Your task to perform on an android device: install app "Chime – Mobile Banking" Image 0: 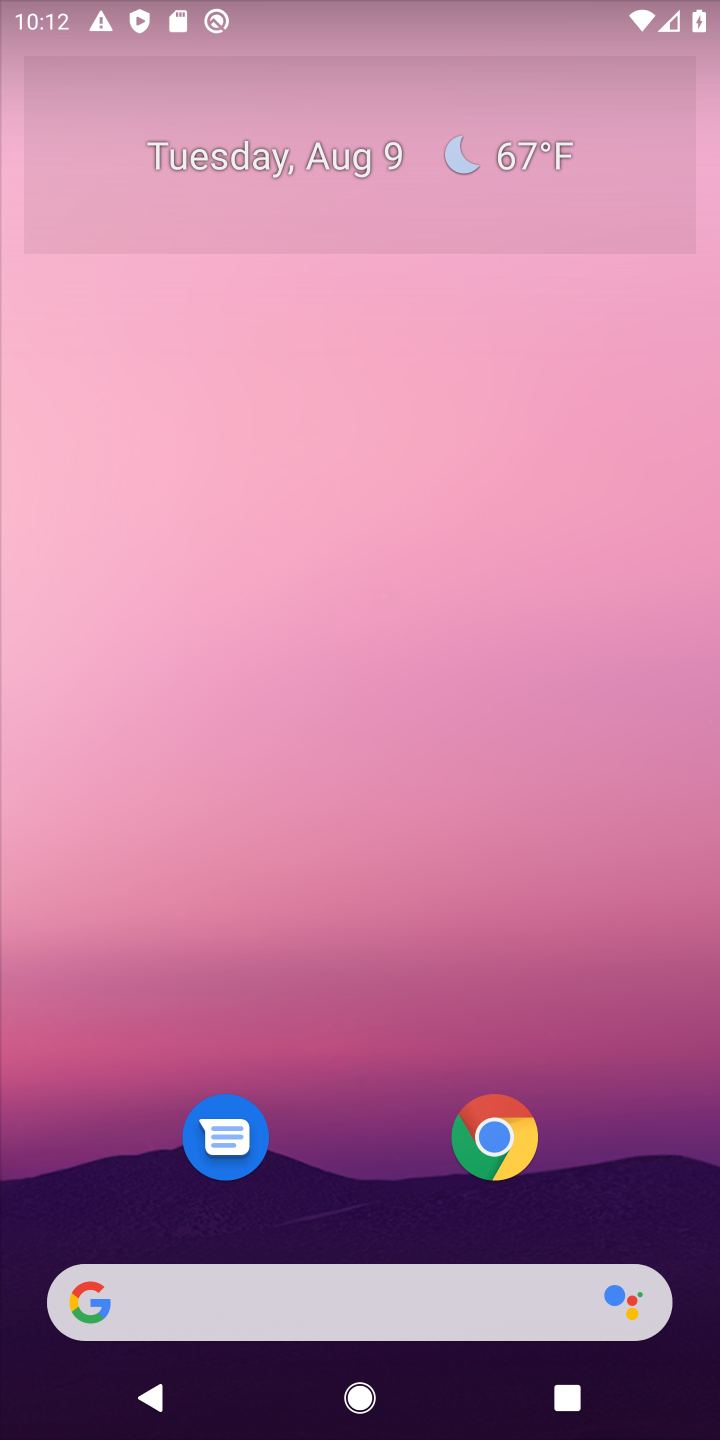
Step 0: drag from (634, 1133) to (212, 109)
Your task to perform on an android device: install app "Chime – Mobile Banking" Image 1: 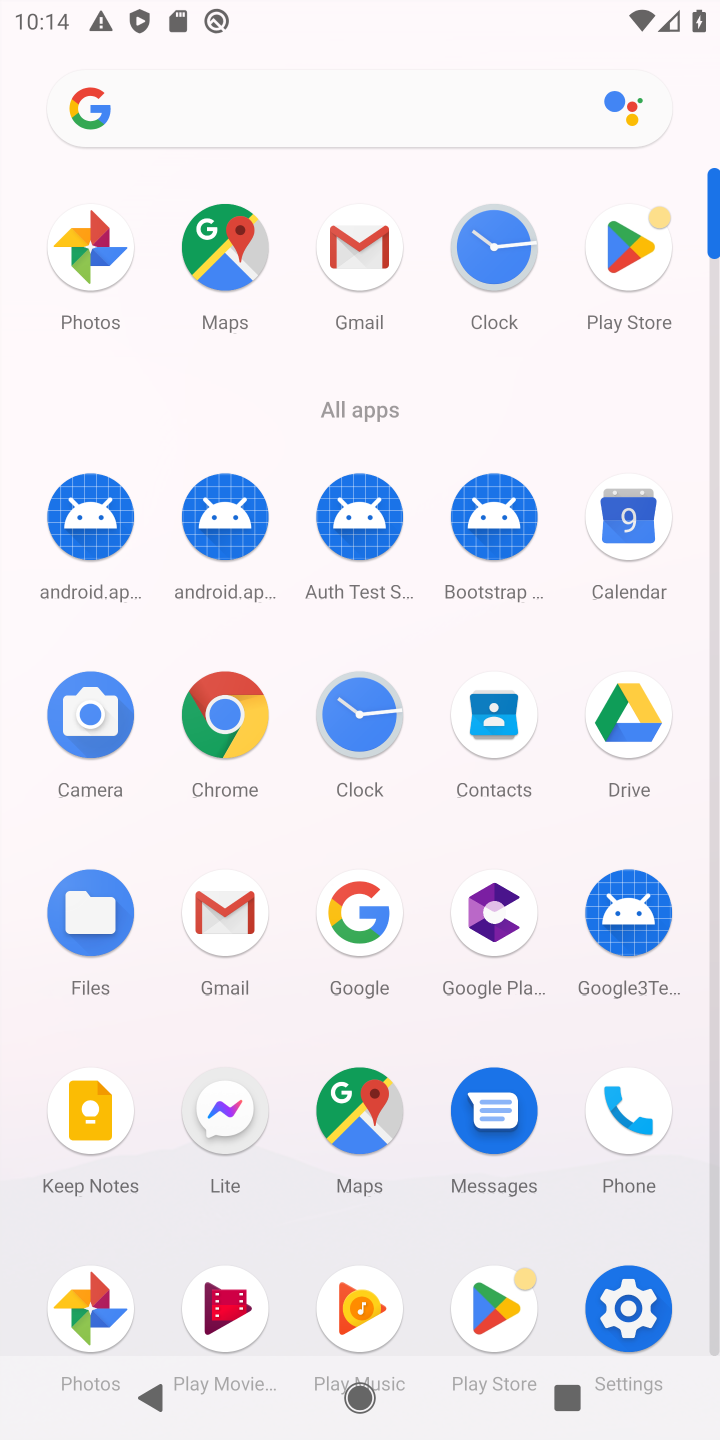
Step 1: click (648, 267)
Your task to perform on an android device: install app "Chime – Mobile Banking" Image 2: 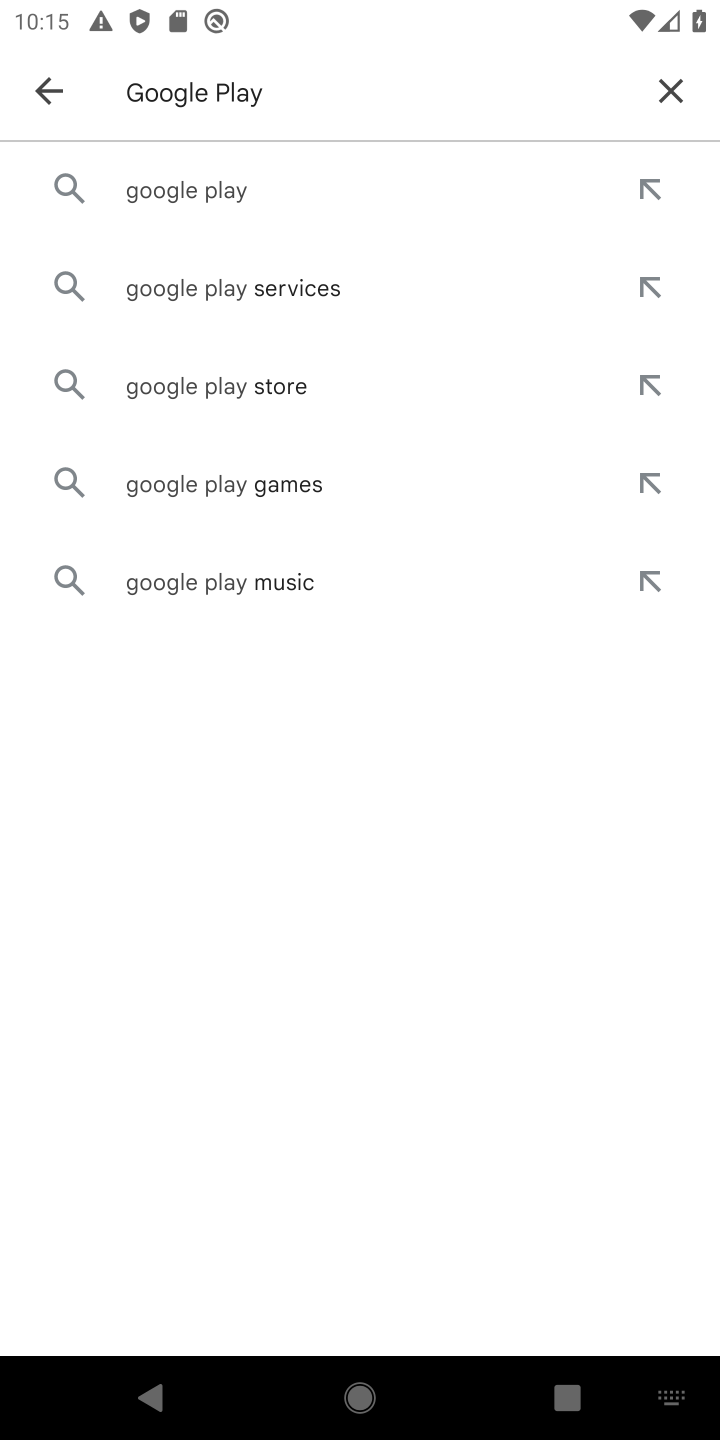
Step 2: click (676, 82)
Your task to perform on an android device: install app "Chime – Mobile Banking" Image 3: 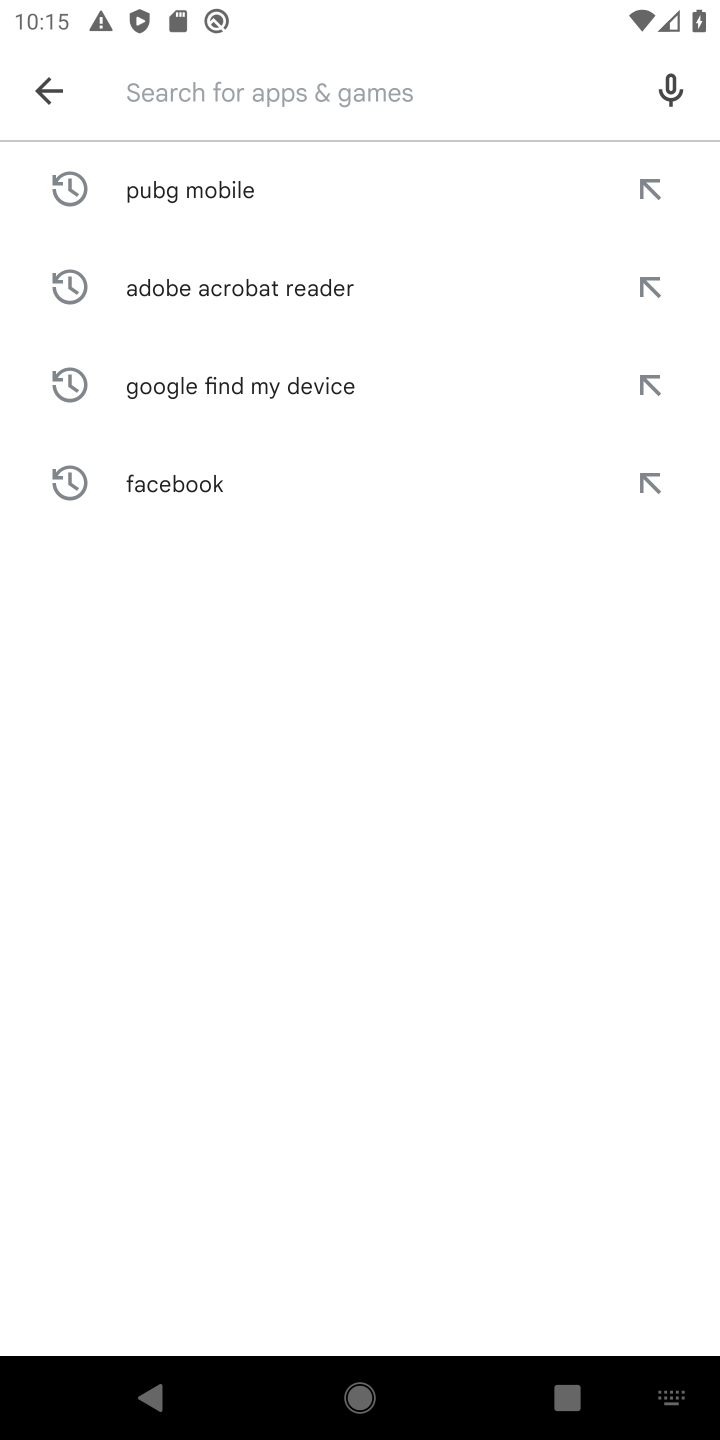
Step 3: type "Chime – Mobile Banking"
Your task to perform on an android device: install app "Chime – Mobile Banking" Image 4: 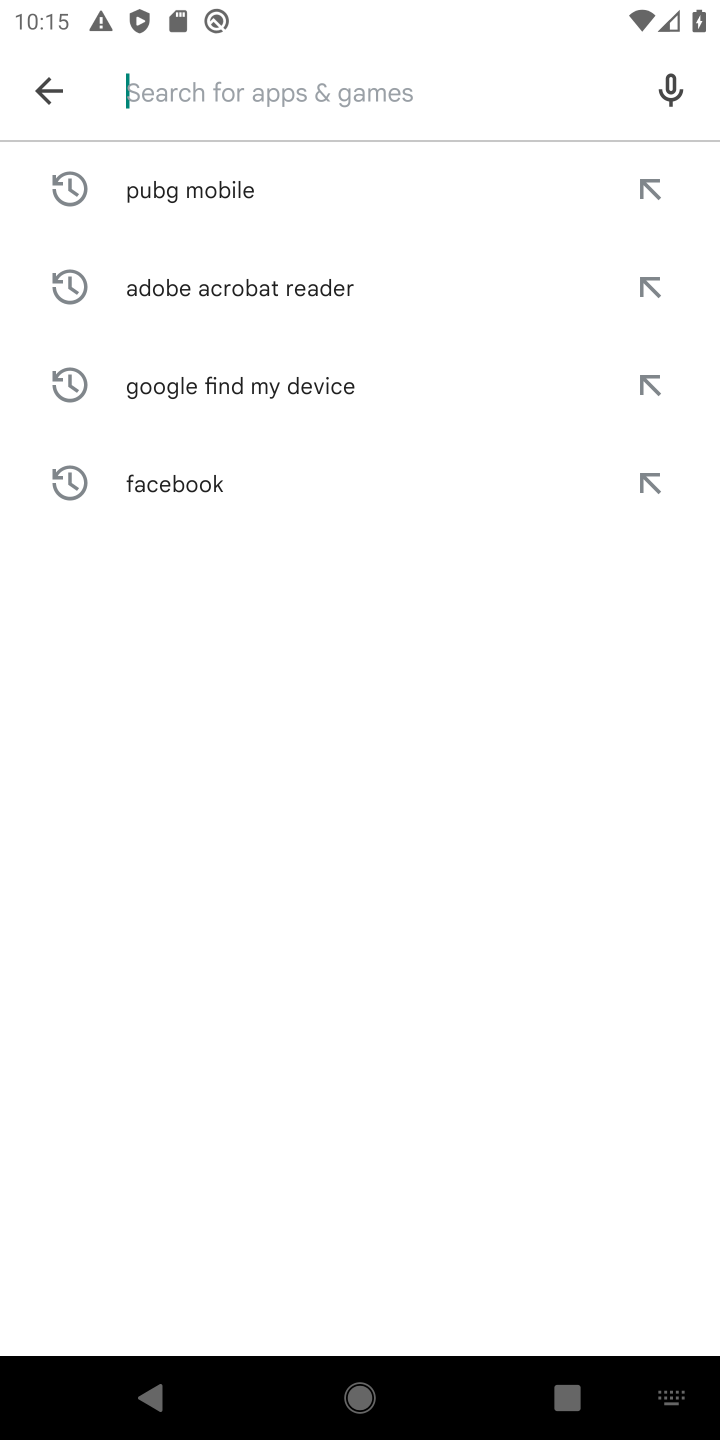
Step 4: task complete